Your task to perform on an android device: Open Youtube and go to "Your channel" Image 0: 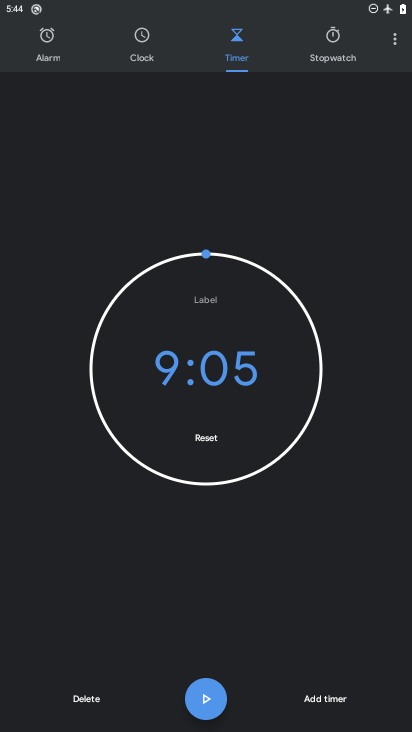
Step 0: press home button
Your task to perform on an android device: Open Youtube and go to "Your channel" Image 1: 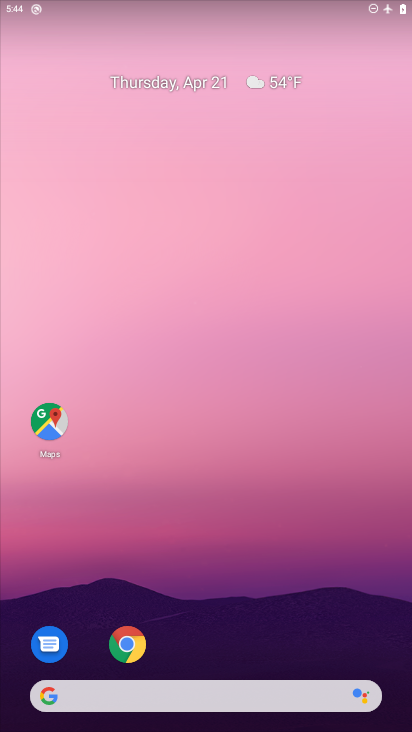
Step 1: drag from (261, 646) to (307, 203)
Your task to perform on an android device: Open Youtube and go to "Your channel" Image 2: 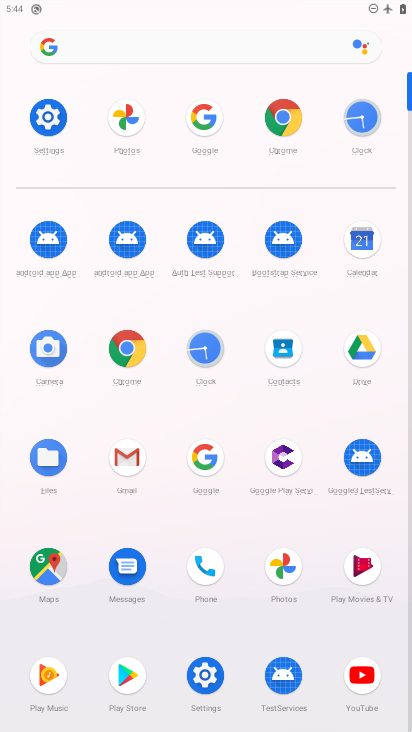
Step 2: click (357, 672)
Your task to perform on an android device: Open Youtube and go to "Your channel" Image 3: 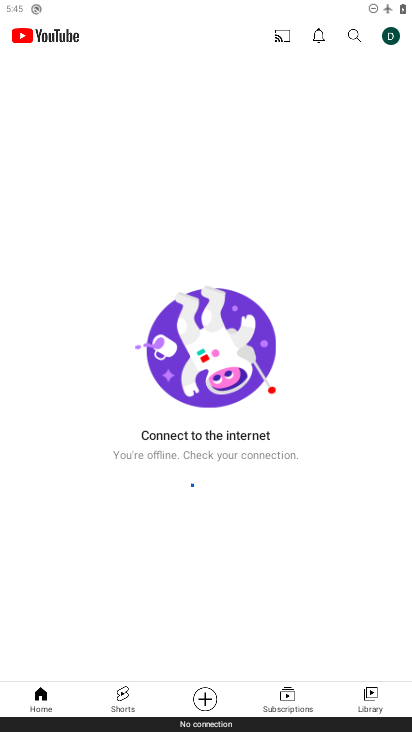
Step 3: click (393, 39)
Your task to perform on an android device: Open Youtube and go to "Your channel" Image 4: 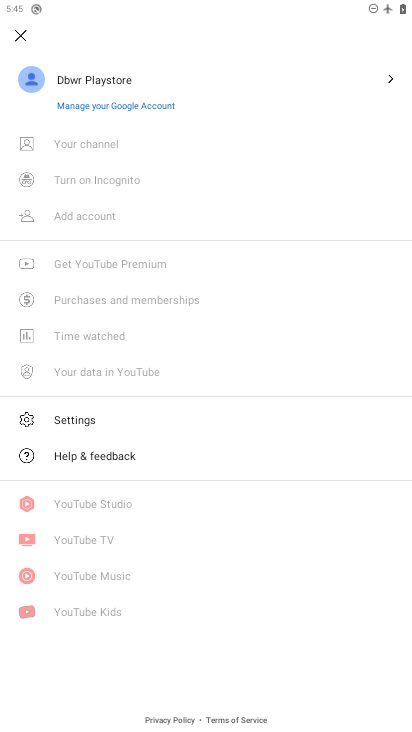
Step 4: click (72, 145)
Your task to perform on an android device: Open Youtube and go to "Your channel" Image 5: 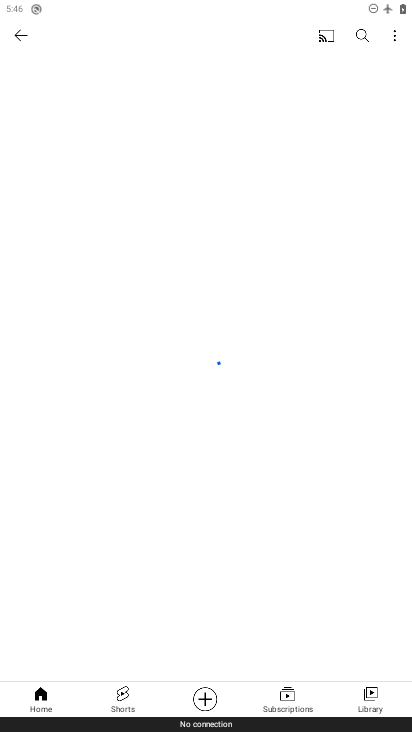
Step 5: task complete